Your task to perform on an android device: Search for "rayovac triple a" on newegg, select the first entry, add it to the cart, then select checkout. Image 0: 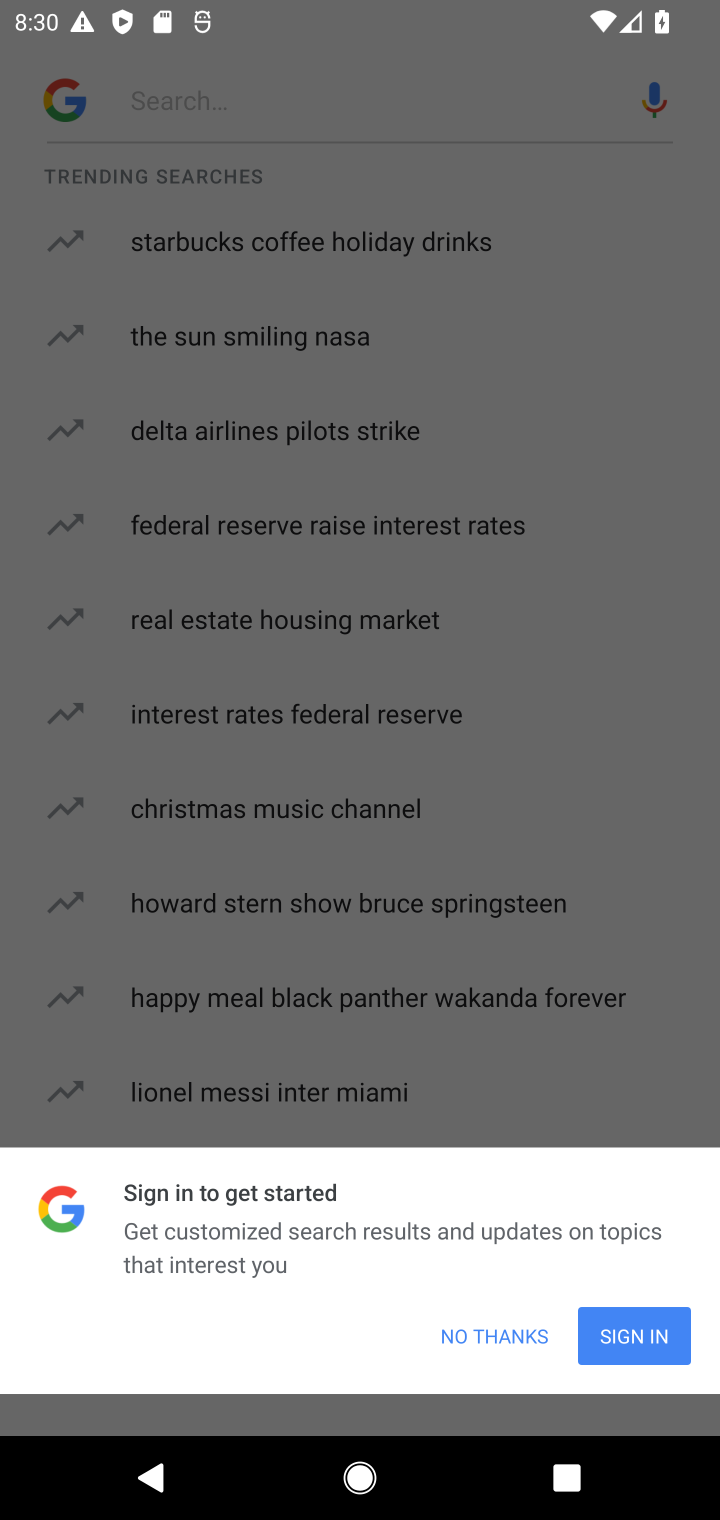
Step 0: press home button
Your task to perform on an android device: Search for "rayovac triple a" on newegg, select the first entry, add it to the cart, then select checkout. Image 1: 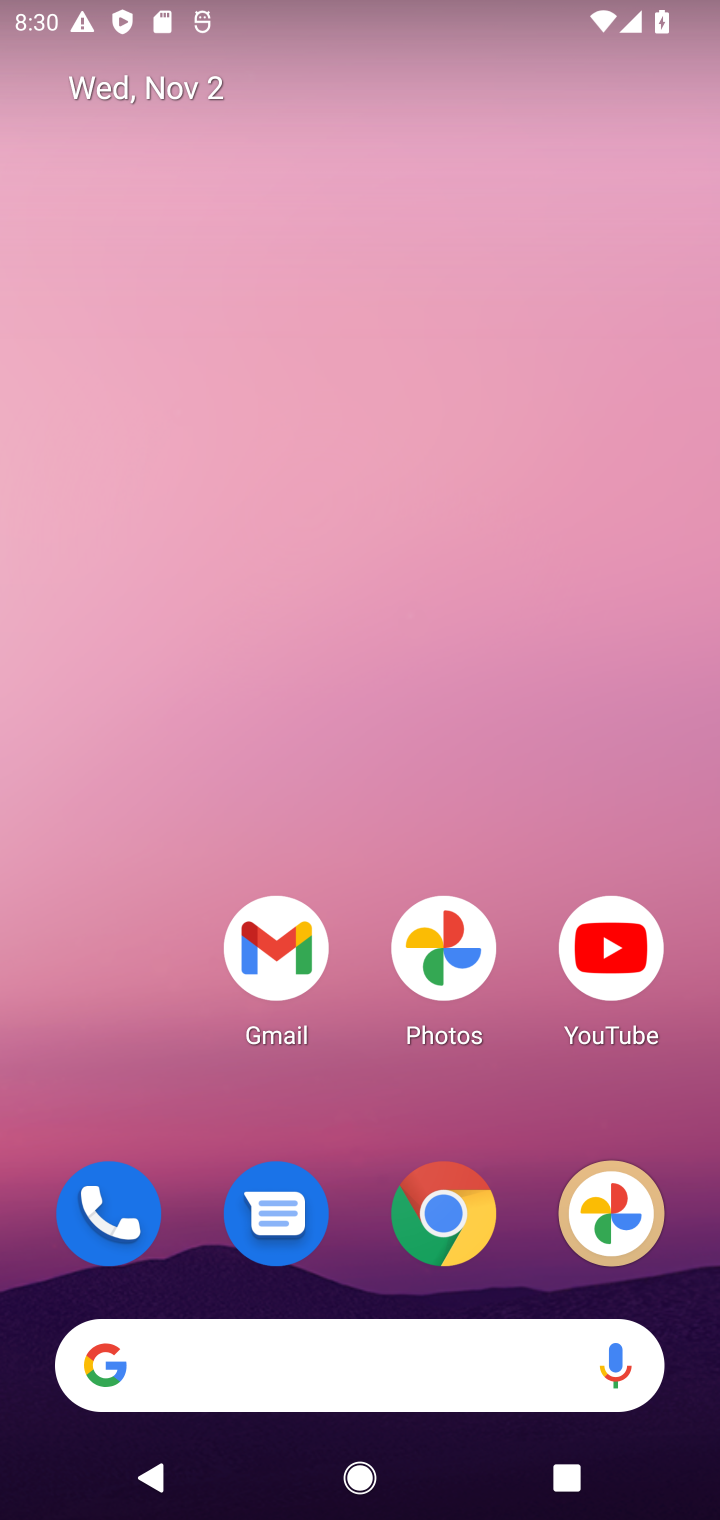
Step 1: click (446, 1227)
Your task to perform on an android device: Search for "rayovac triple a" on newegg, select the first entry, add it to the cart, then select checkout. Image 2: 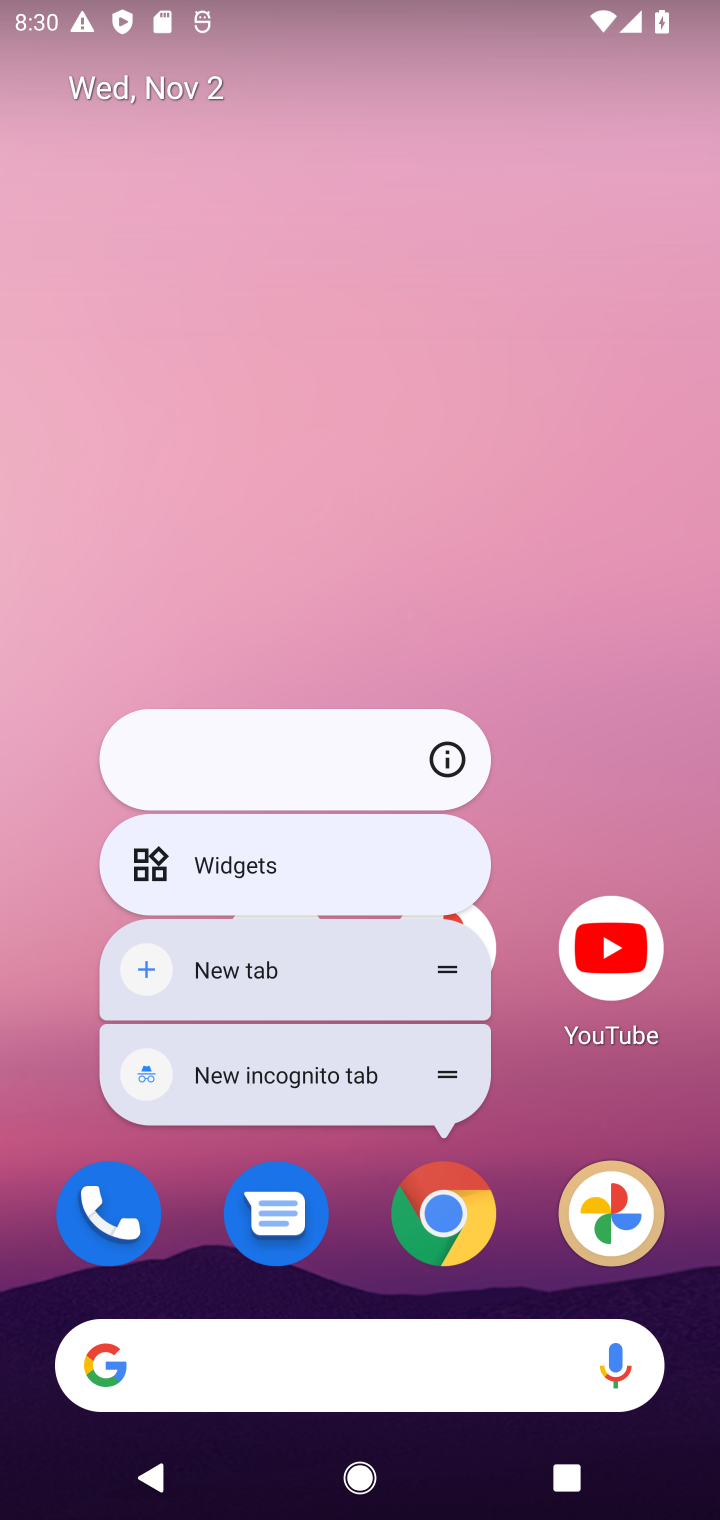
Step 2: click (446, 1227)
Your task to perform on an android device: Search for "rayovac triple a" on newegg, select the first entry, add it to the cart, then select checkout. Image 3: 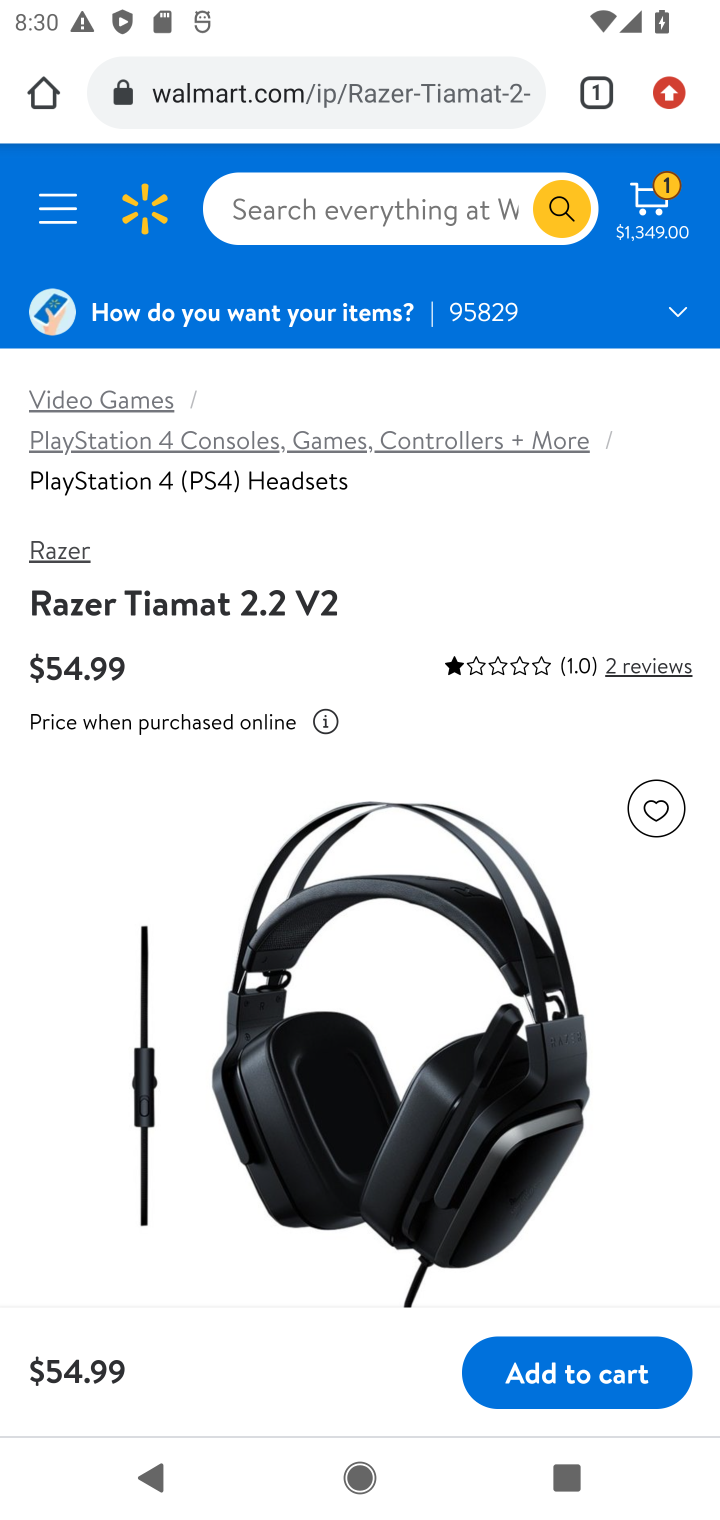
Step 3: click (331, 113)
Your task to perform on an android device: Search for "rayovac triple a" on newegg, select the first entry, add it to the cart, then select checkout. Image 4: 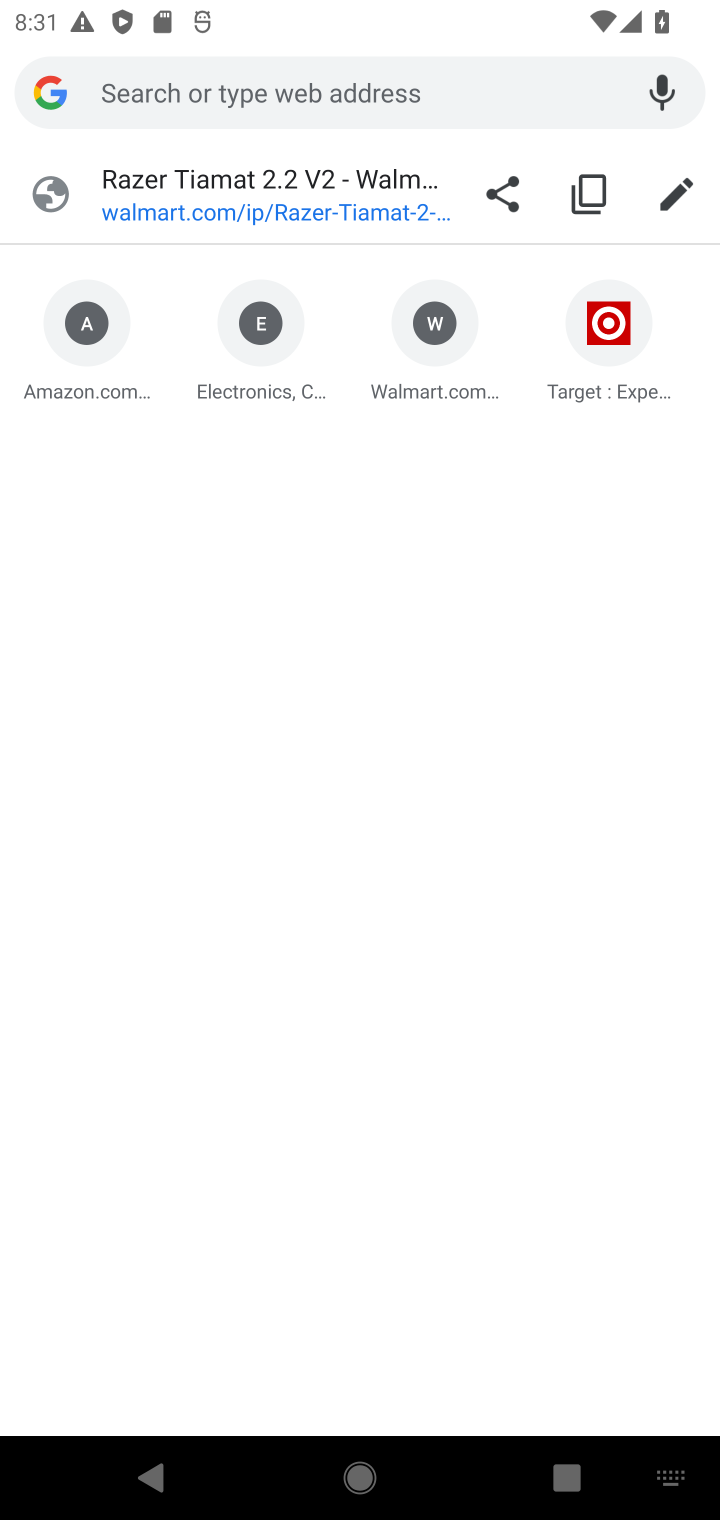
Step 4: type "newegg.com"
Your task to perform on an android device: Search for "rayovac triple a" on newegg, select the first entry, add it to the cart, then select checkout. Image 5: 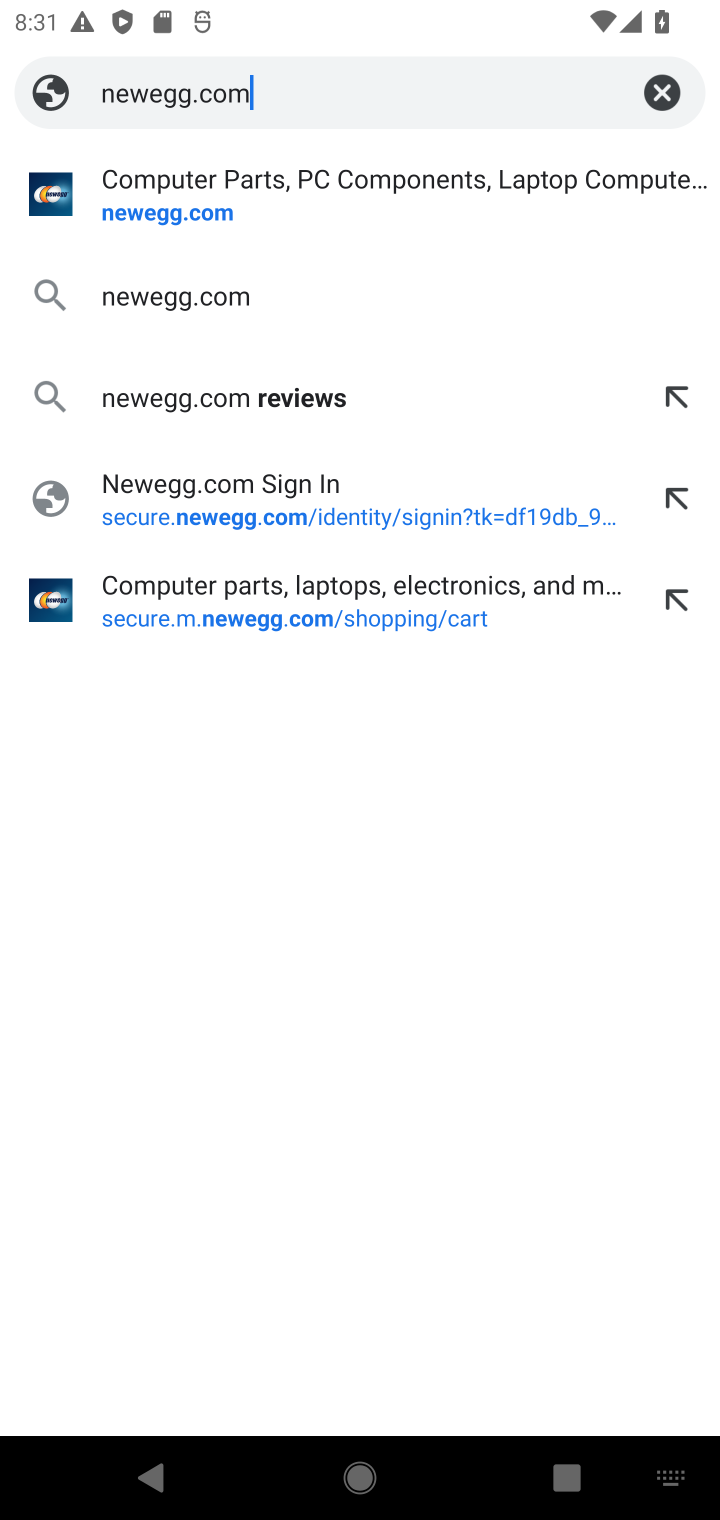
Step 5: click (191, 300)
Your task to perform on an android device: Search for "rayovac triple a" on newegg, select the first entry, add it to the cart, then select checkout. Image 6: 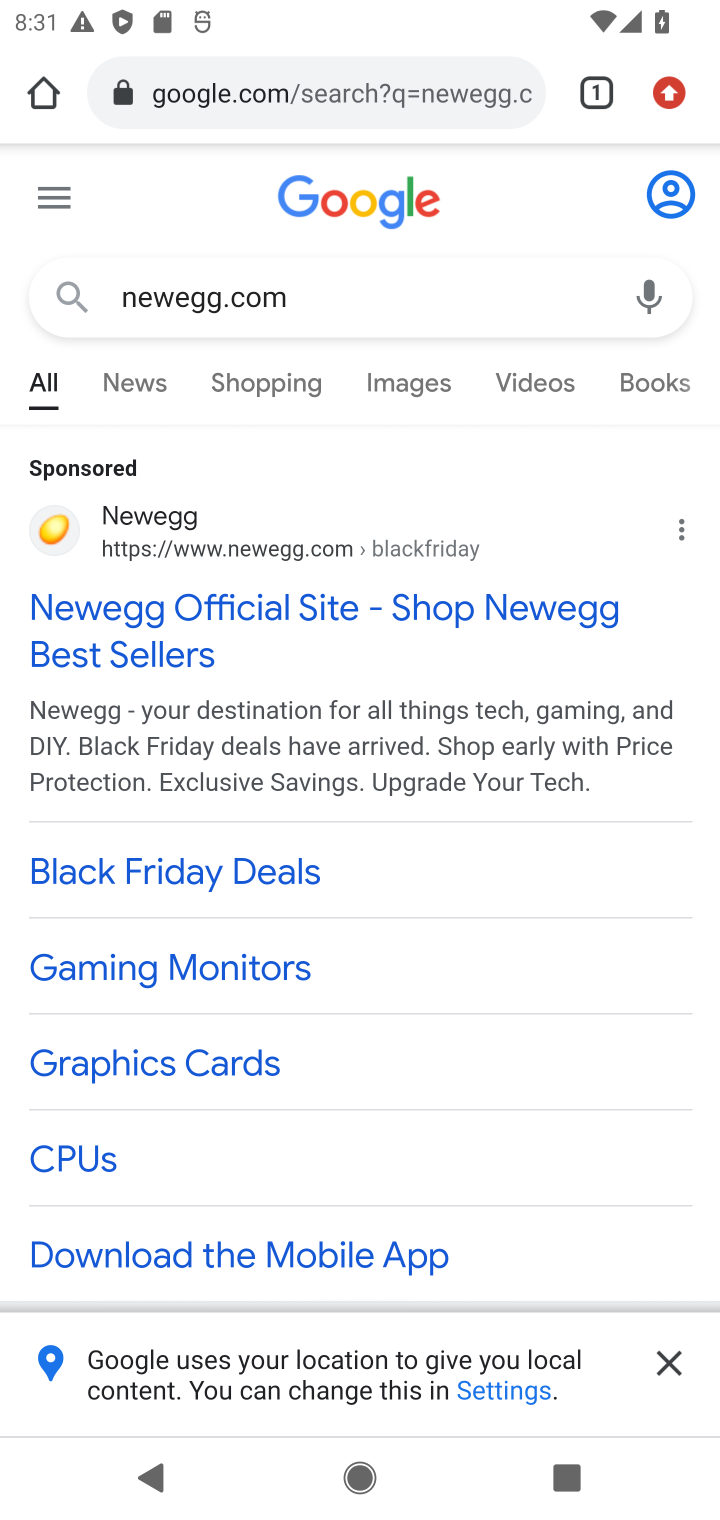
Step 6: drag from (332, 1127) to (417, 512)
Your task to perform on an android device: Search for "rayovac triple a" on newegg, select the first entry, add it to the cart, then select checkout. Image 7: 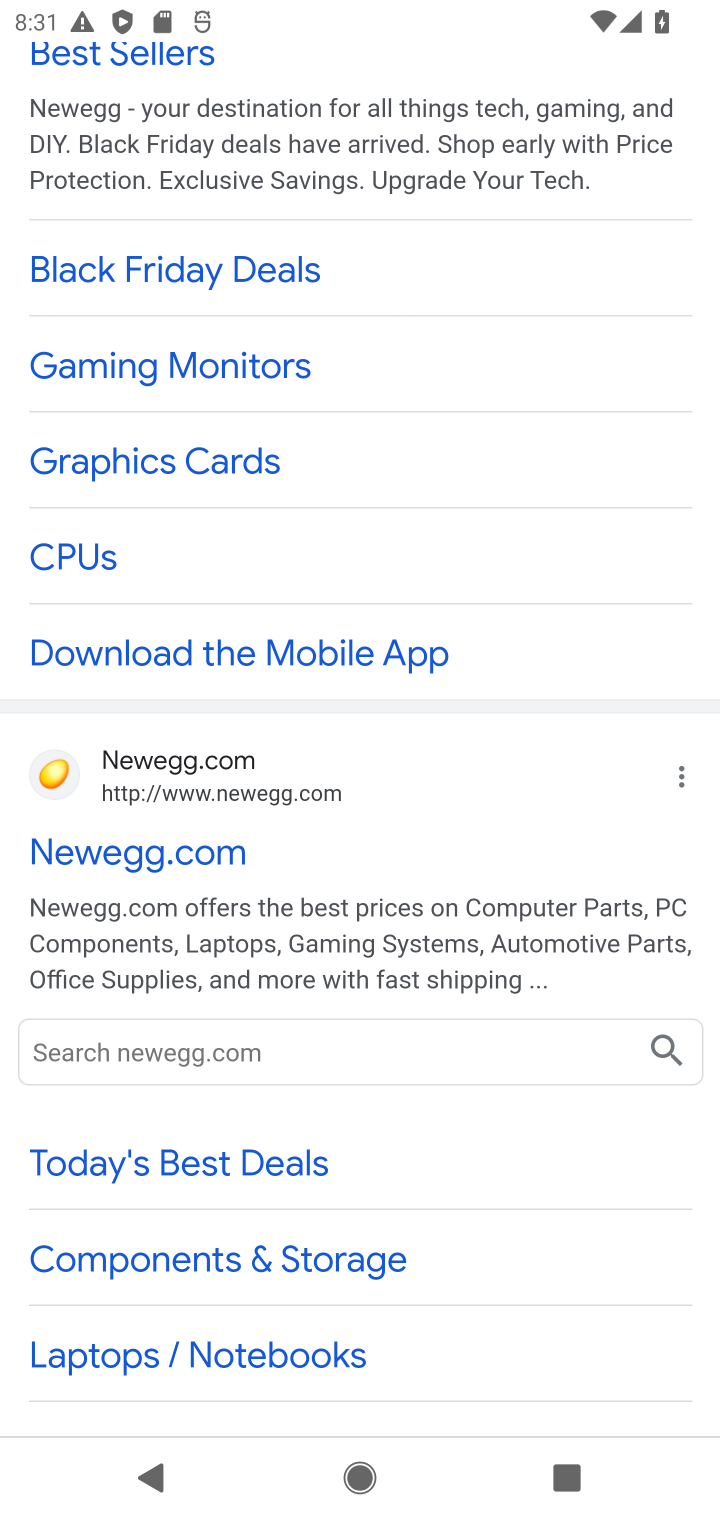
Step 7: click (75, 868)
Your task to perform on an android device: Search for "rayovac triple a" on newegg, select the first entry, add it to the cart, then select checkout. Image 8: 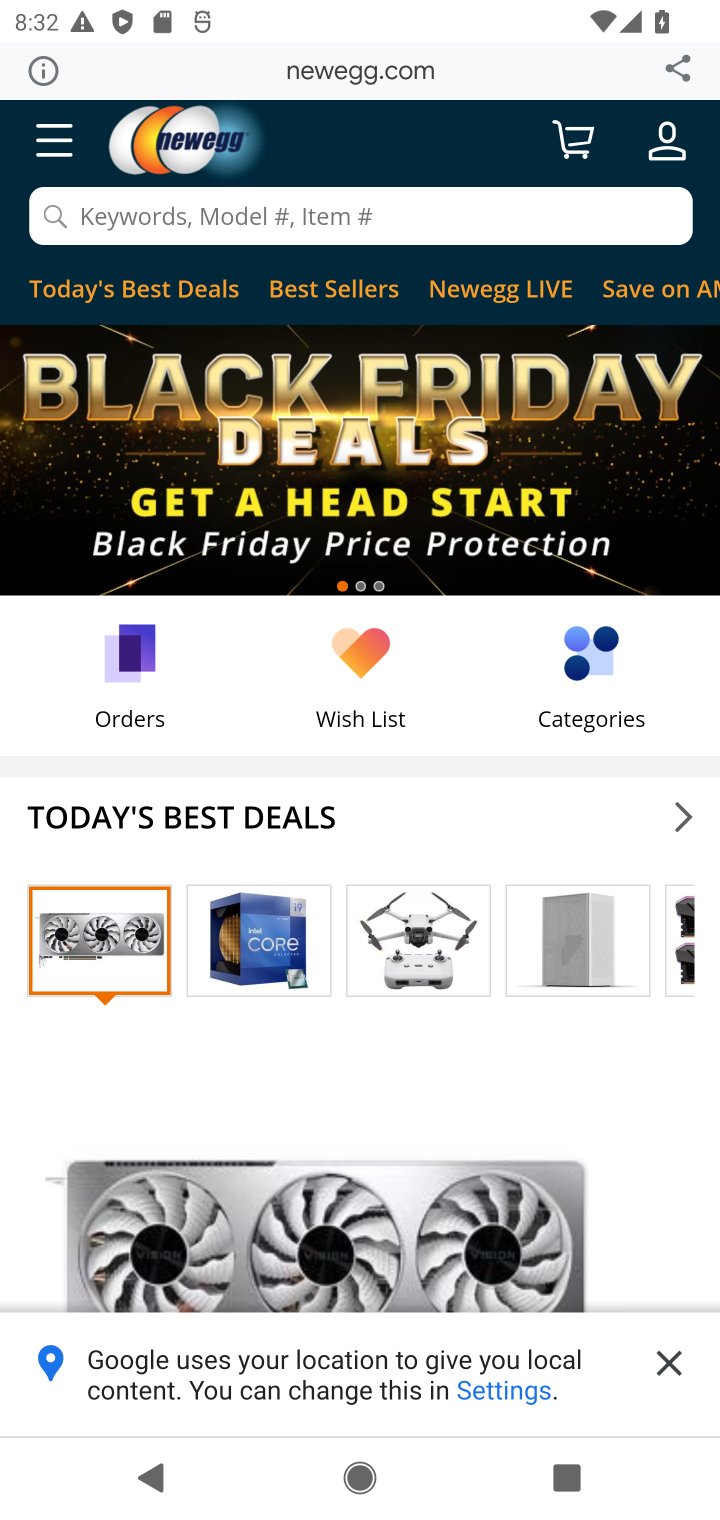
Step 8: click (218, 217)
Your task to perform on an android device: Search for "rayovac triple a" on newegg, select the first entry, add it to the cart, then select checkout. Image 9: 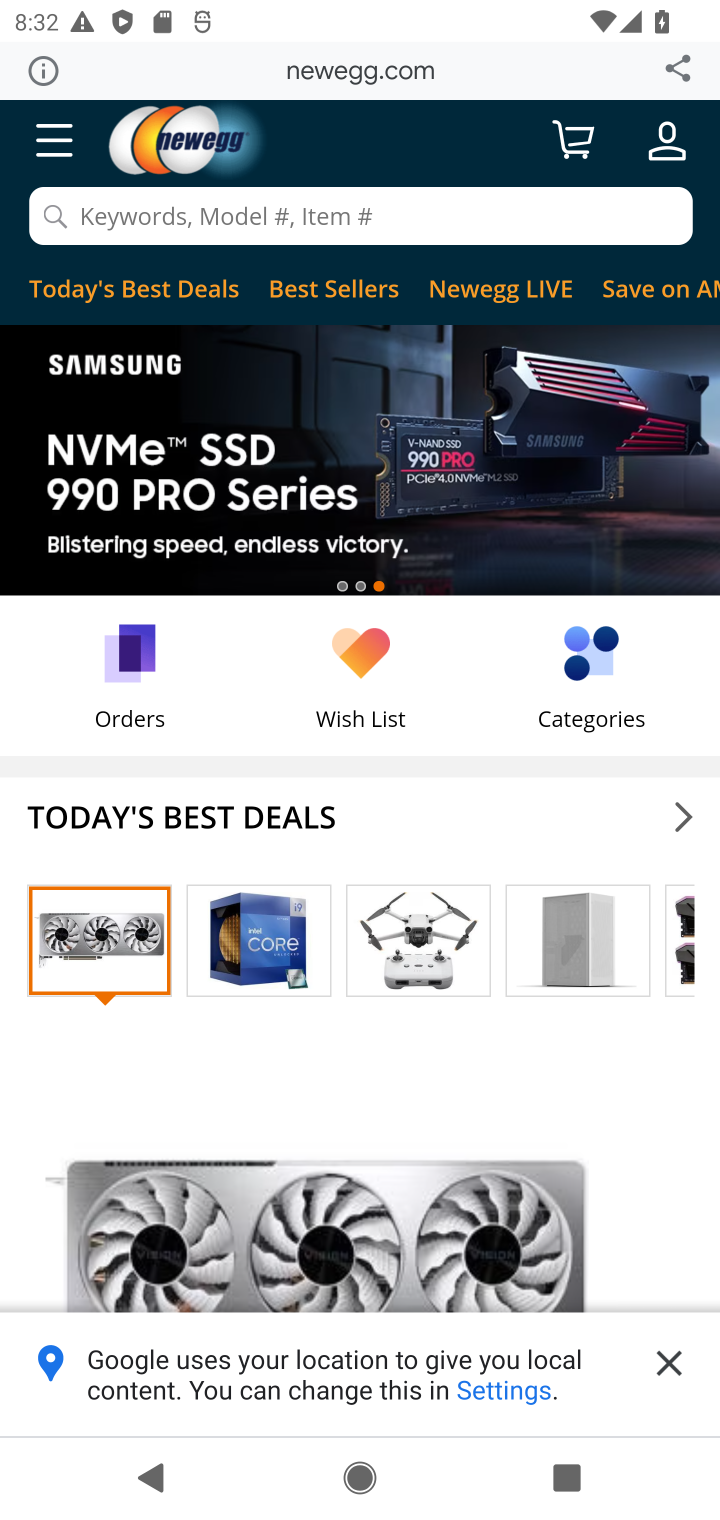
Step 9: click (140, 224)
Your task to perform on an android device: Search for "rayovac triple a" on newegg, select the first entry, add it to the cart, then select checkout. Image 10: 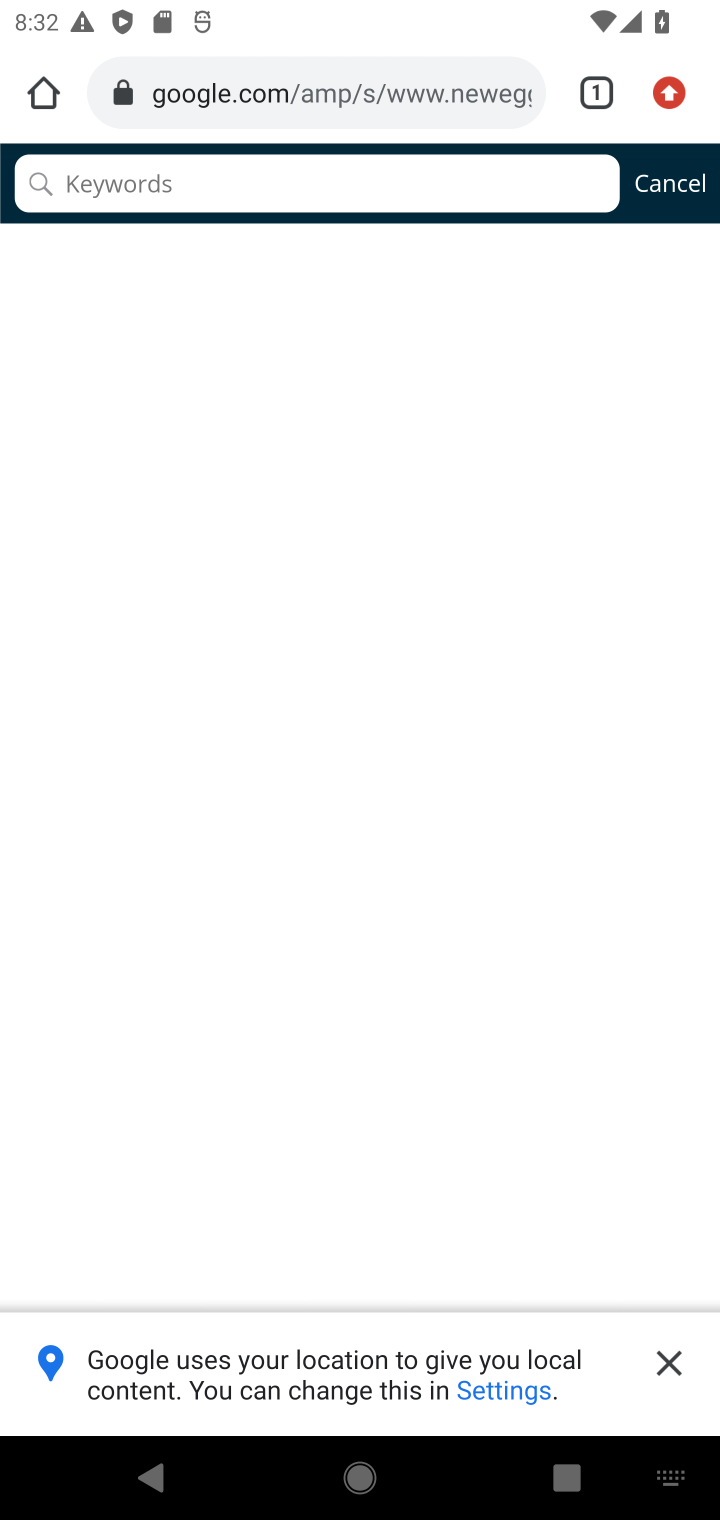
Step 10: type "rayovac triple a"
Your task to perform on an android device: Search for "rayovac triple a" on newegg, select the first entry, add it to the cart, then select checkout. Image 11: 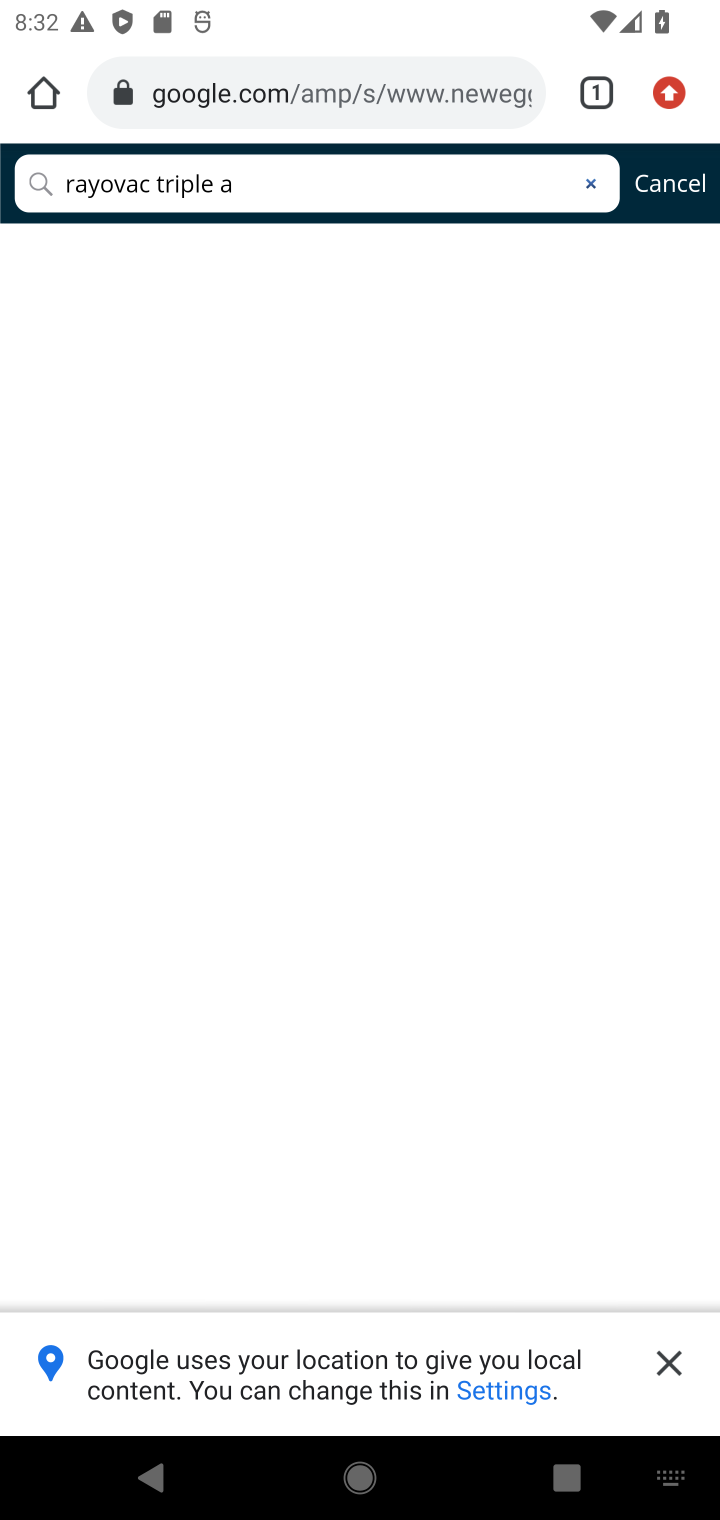
Step 11: click (37, 180)
Your task to perform on an android device: Search for "rayovac triple a" on newegg, select the first entry, add it to the cart, then select checkout. Image 12: 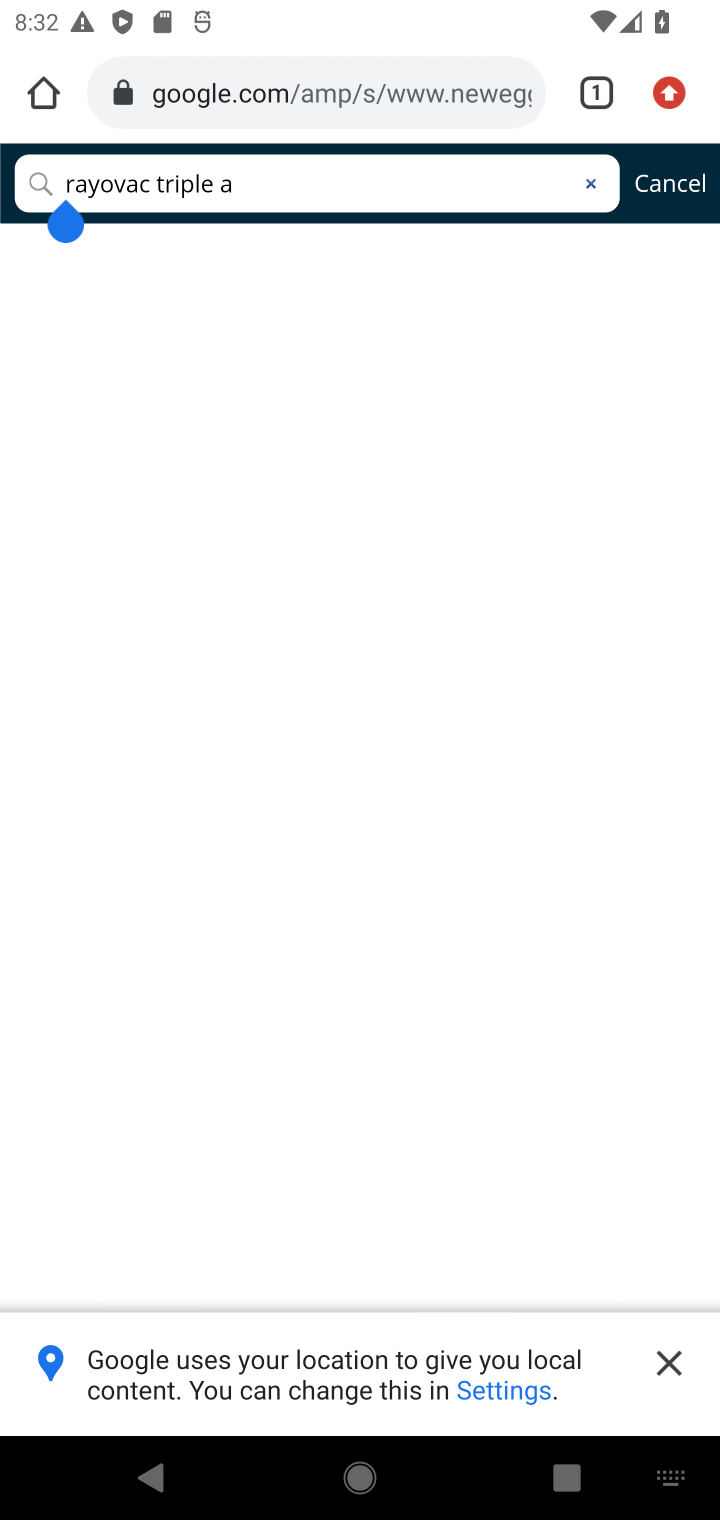
Step 12: task complete